Your task to perform on an android device: Open ESPN.com Image 0: 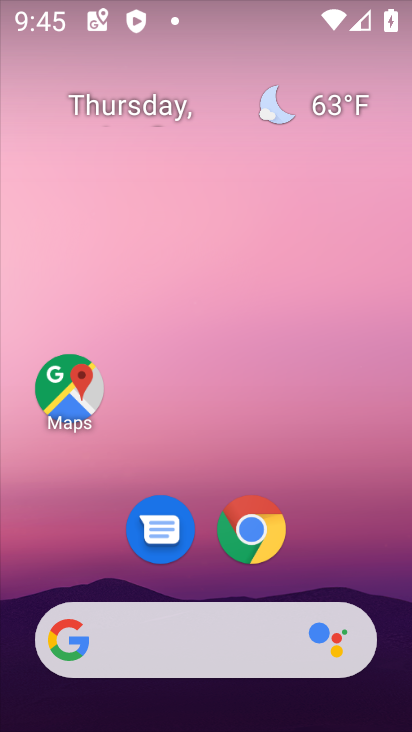
Step 0: click (258, 501)
Your task to perform on an android device: Open ESPN.com Image 1: 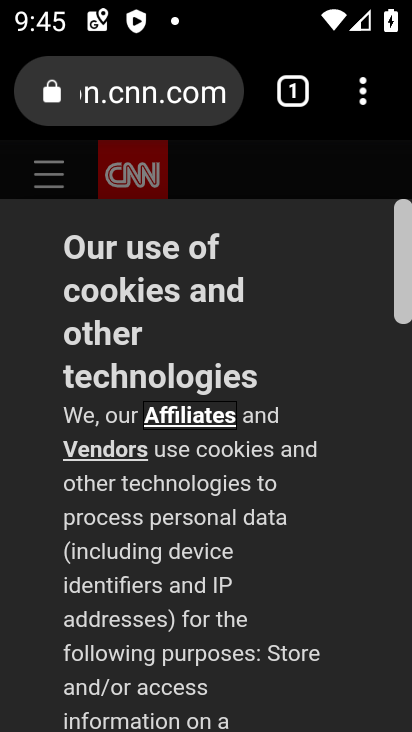
Step 1: click (181, 75)
Your task to perform on an android device: Open ESPN.com Image 2: 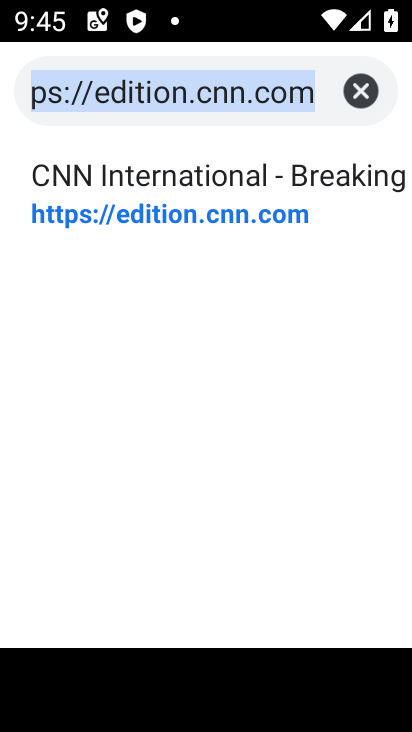
Step 2: click (371, 82)
Your task to perform on an android device: Open ESPN.com Image 3: 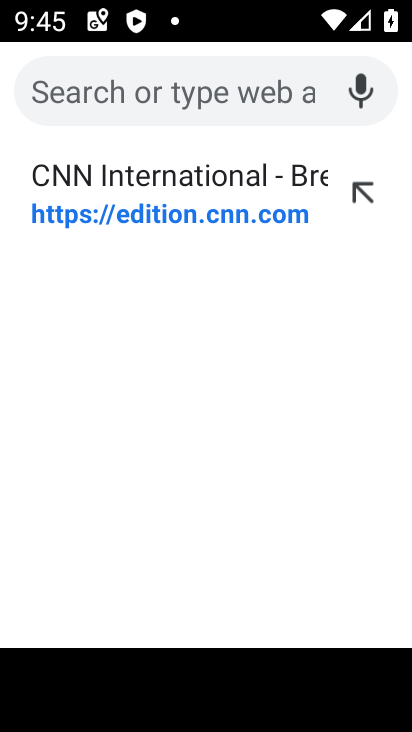
Step 3: type "espn"
Your task to perform on an android device: Open ESPN.com Image 4: 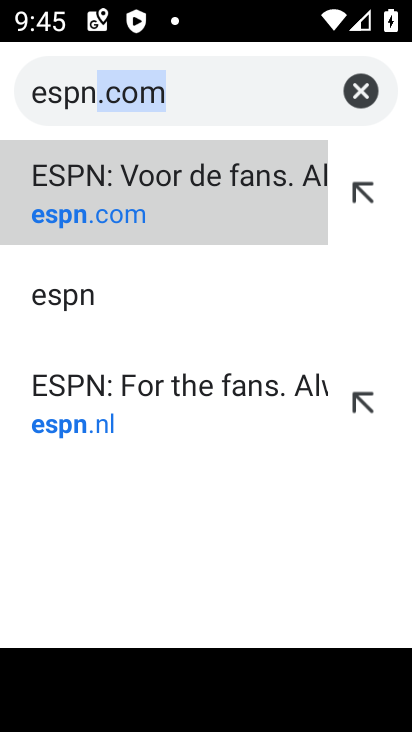
Step 4: click (226, 176)
Your task to perform on an android device: Open ESPN.com Image 5: 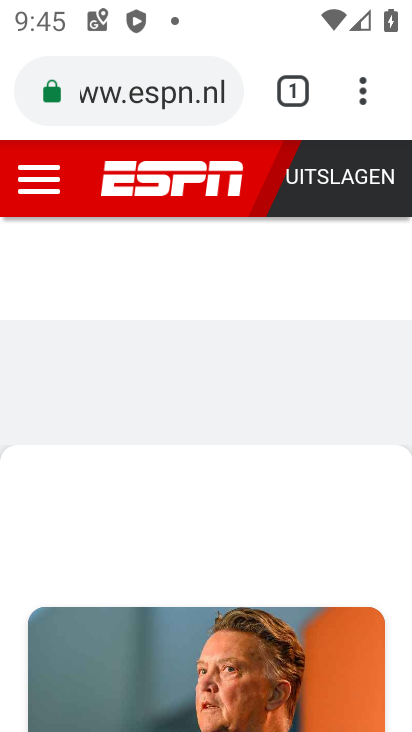
Step 5: task complete